Your task to perform on an android device: Open Google Maps Image 0: 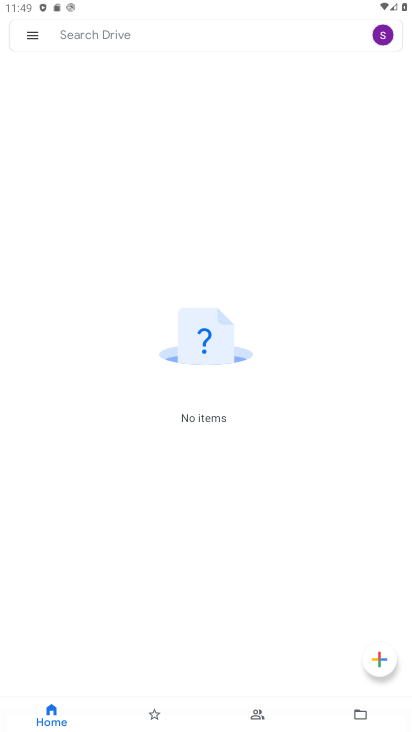
Step 0: press home button
Your task to perform on an android device: Open Google Maps Image 1: 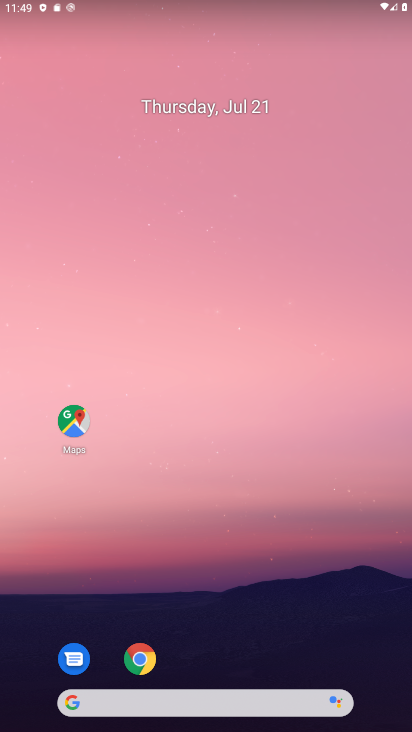
Step 1: click (159, 649)
Your task to perform on an android device: Open Google Maps Image 2: 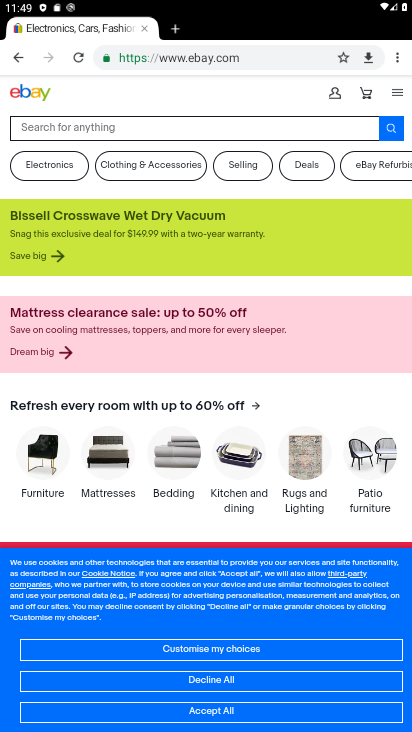
Step 2: press home button
Your task to perform on an android device: Open Google Maps Image 3: 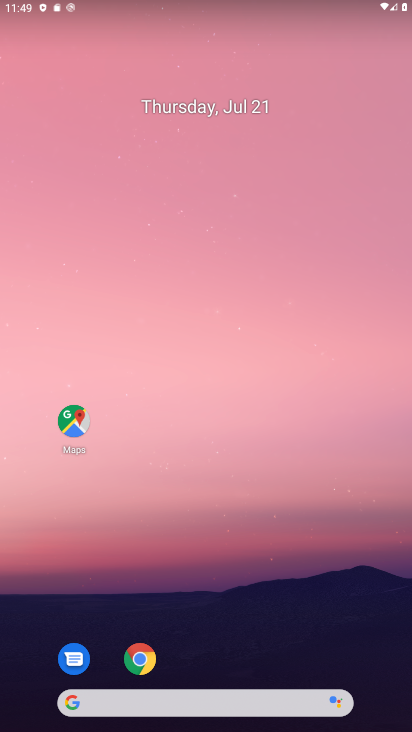
Step 3: click (93, 439)
Your task to perform on an android device: Open Google Maps Image 4: 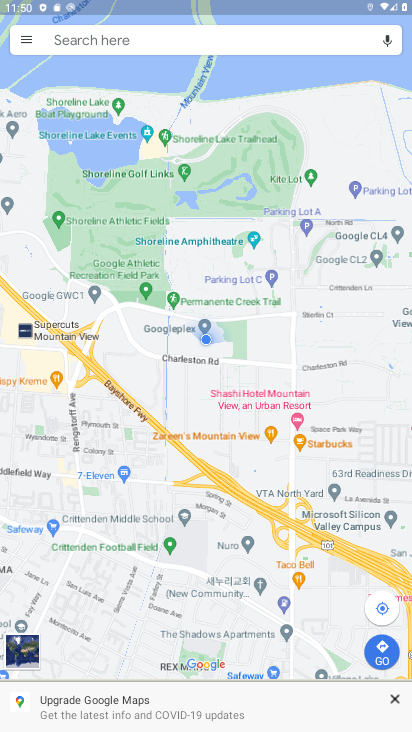
Step 4: task complete